Your task to perform on an android device: Open eBay Image 0: 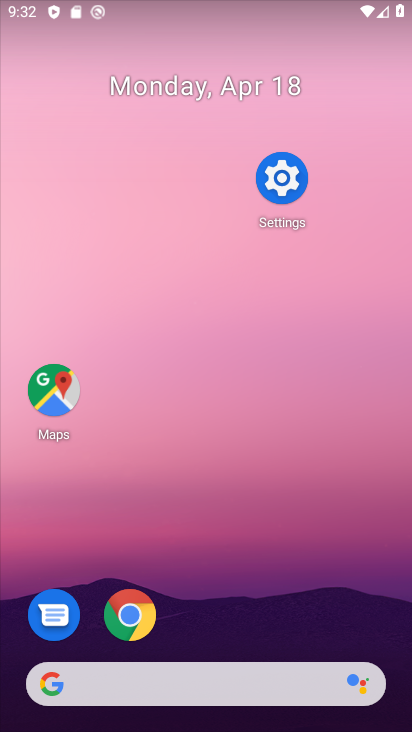
Step 0: drag from (270, 645) to (152, 95)
Your task to perform on an android device: Open eBay Image 1: 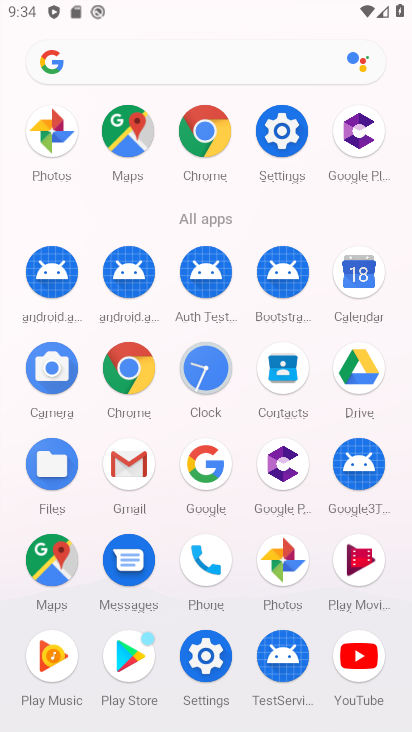
Step 1: click (207, 144)
Your task to perform on an android device: Open eBay Image 2: 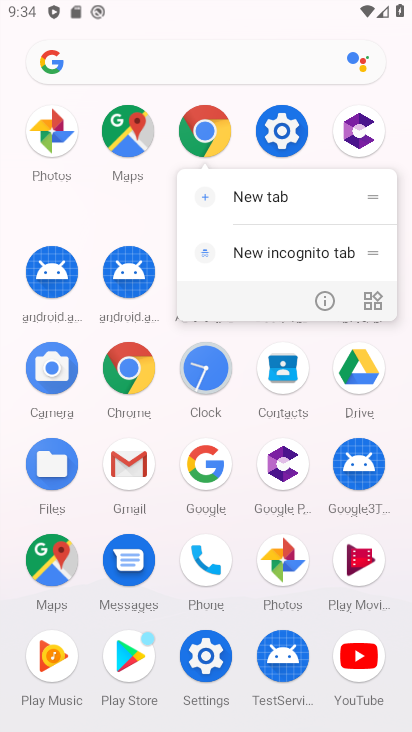
Step 2: click (207, 144)
Your task to perform on an android device: Open eBay Image 3: 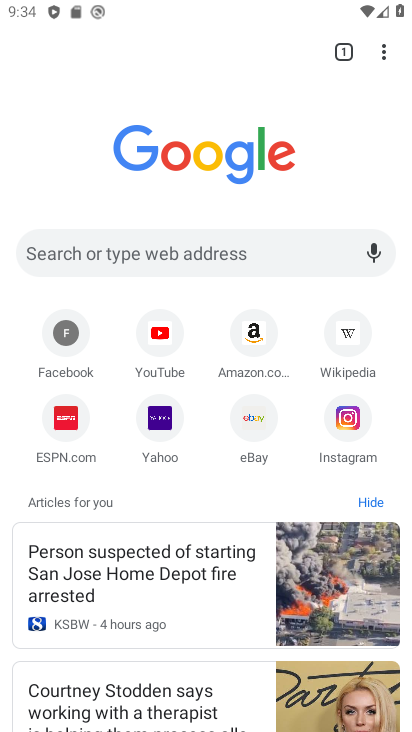
Step 3: click (250, 423)
Your task to perform on an android device: Open eBay Image 4: 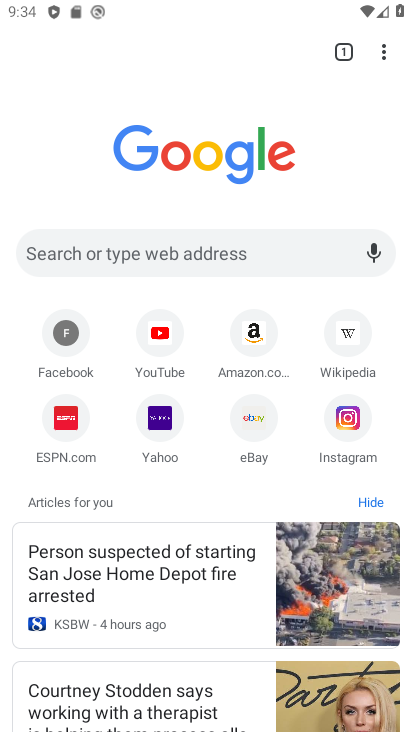
Step 4: click (250, 423)
Your task to perform on an android device: Open eBay Image 5: 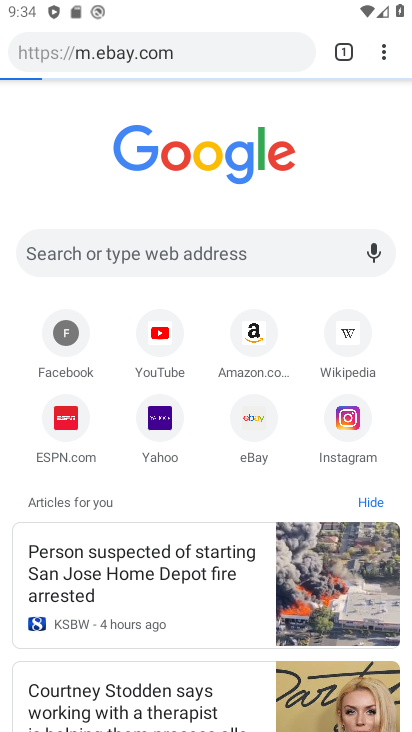
Step 5: click (249, 417)
Your task to perform on an android device: Open eBay Image 6: 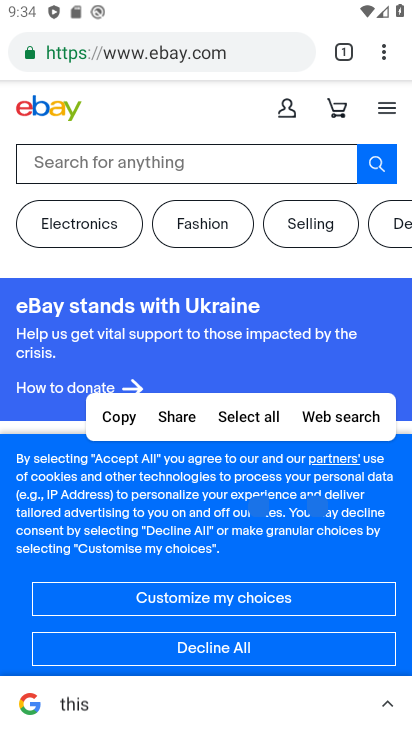
Step 6: task complete